Your task to perform on an android device: Go to Google Image 0: 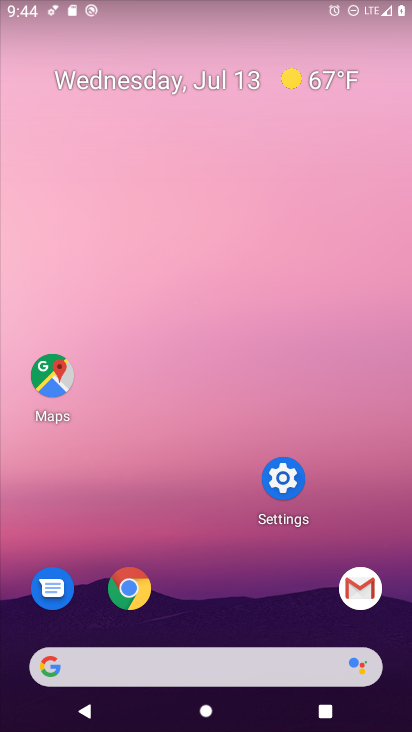
Step 0: press home button
Your task to perform on an android device: Go to Google Image 1: 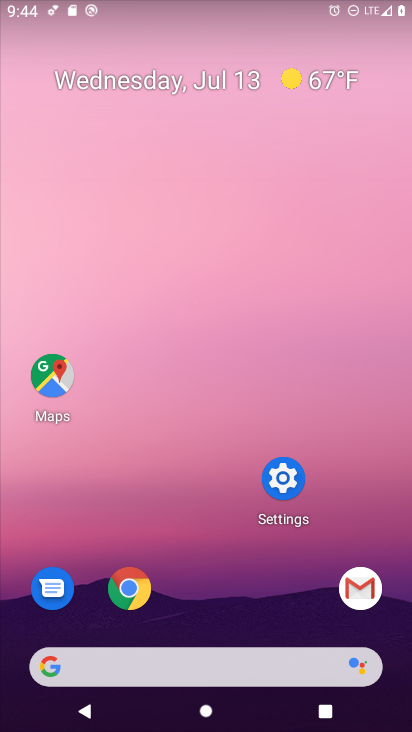
Step 1: click (40, 670)
Your task to perform on an android device: Go to Google Image 2: 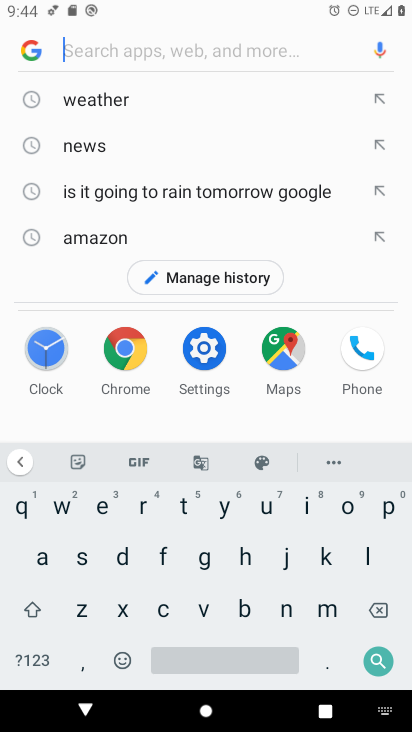
Step 2: click (27, 55)
Your task to perform on an android device: Go to Google Image 3: 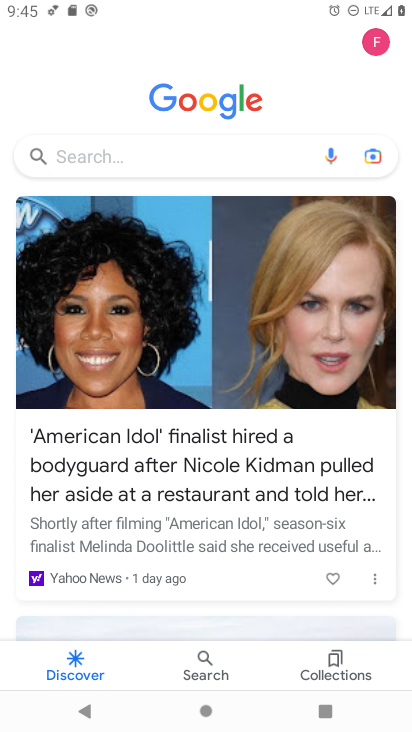
Step 3: task complete